Your task to perform on an android device: Show me popular videos on Youtube Image 0: 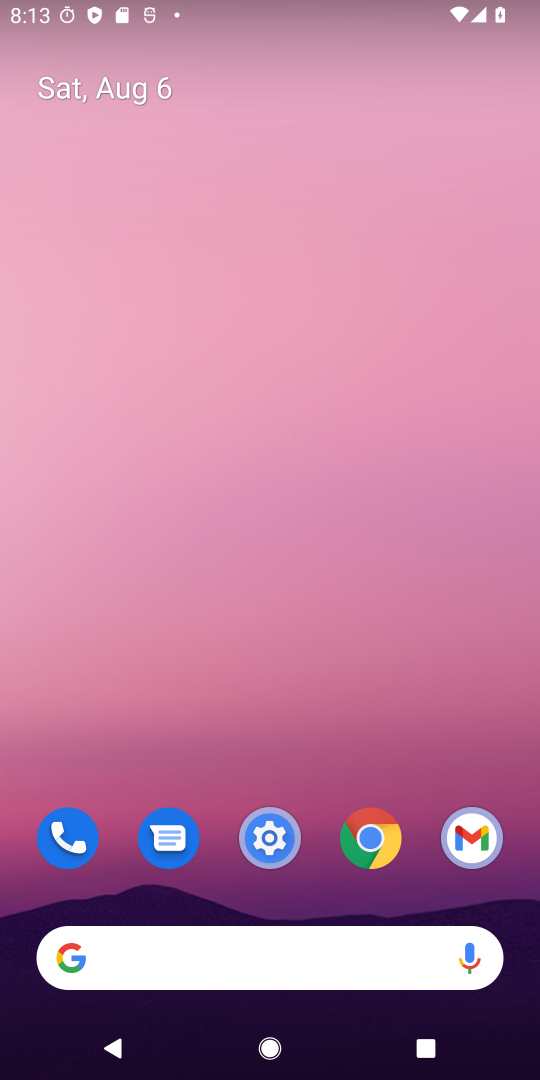
Step 0: drag from (191, 874) to (173, 220)
Your task to perform on an android device: Show me popular videos on Youtube Image 1: 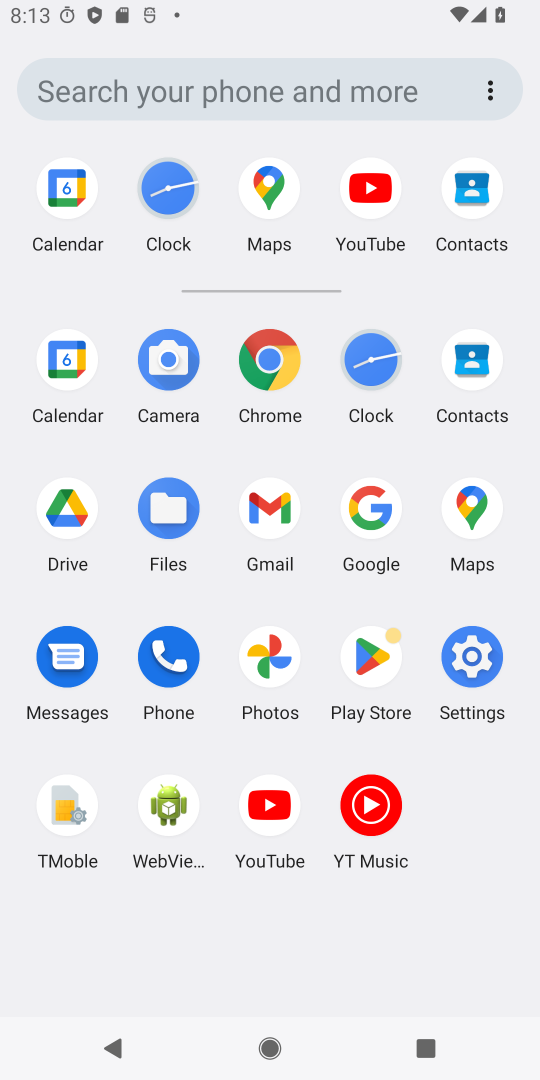
Step 1: click (261, 804)
Your task to perform on an android device: Show me popular videos on Youtube Image 2: 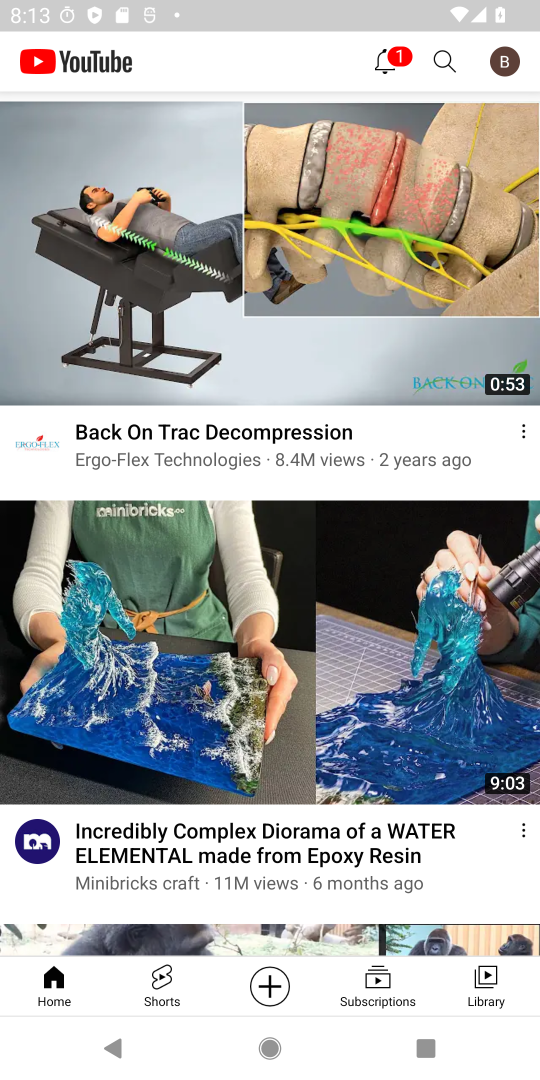
Step 2: task complete